Your task to perform on an android device: turn off translation in the chrome app Image 0: 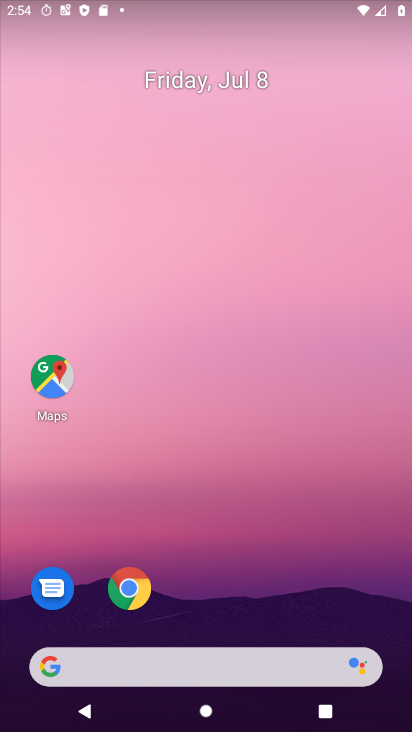
Step 0: press home button
Your task to perform on an android device: turn off translation in the chrome app Image 1: 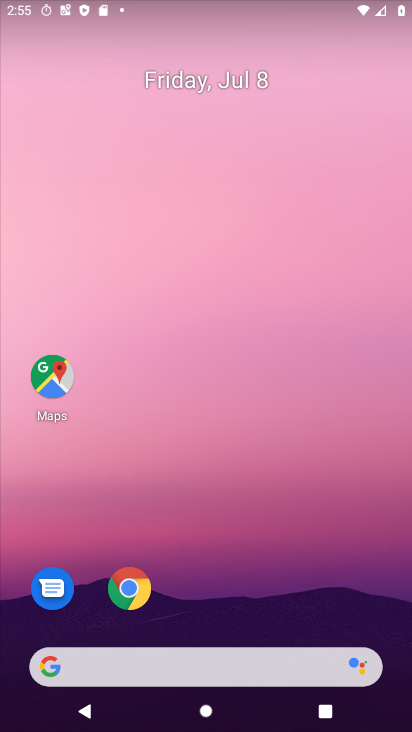
Step 1: drag from (200, 612) to (188, 54)
Your task to perform on an android device: turn off translation in the chrome app Image 2: 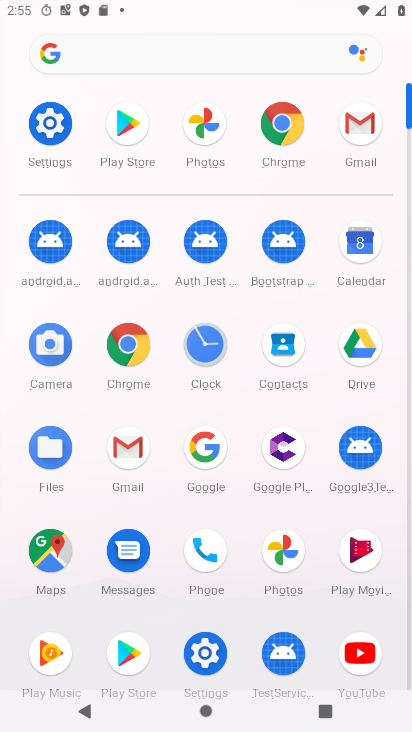
Step 2: click (292, 130)
Your task to perform on an android device: turn off translation in the chrome app Image 3: 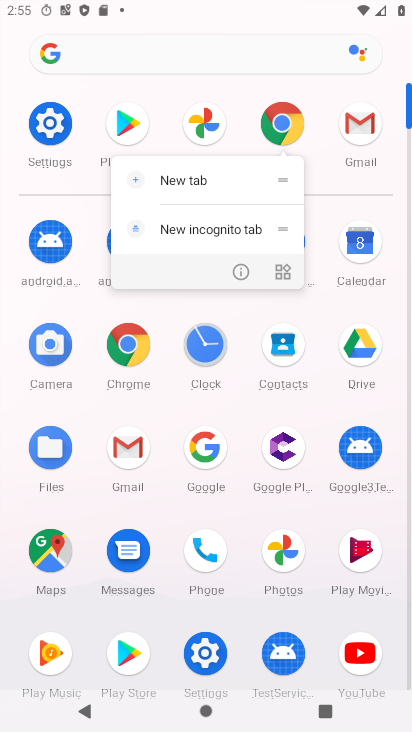
Step 3: click (293, 128)
Your task to perform on an android device: turn off translation in the chrome app Image 4: 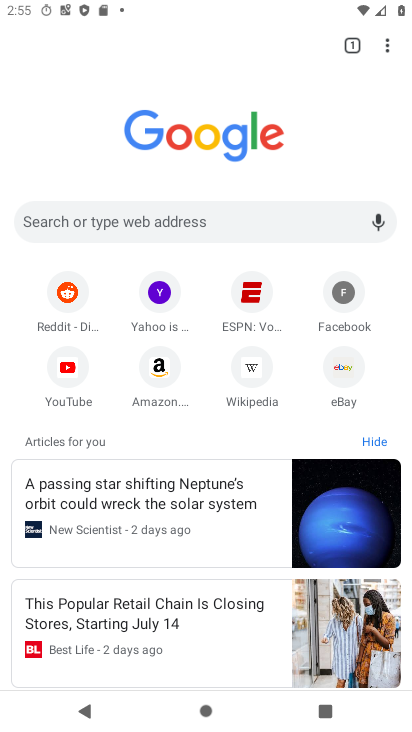
Step 4: drag from (390, 42) to (232, 381)
Your task to perform on an android device: turn off translation in the chrome app Image 5: 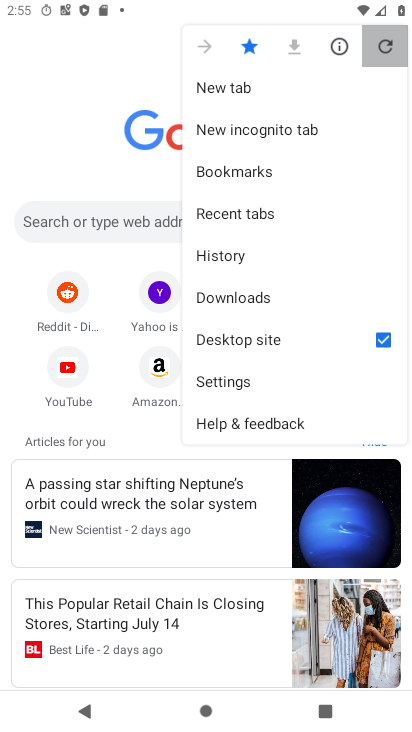
Step 5: click (225, 380)
Your task to perform on an android device: turn off translation in the chrome app Image 6: 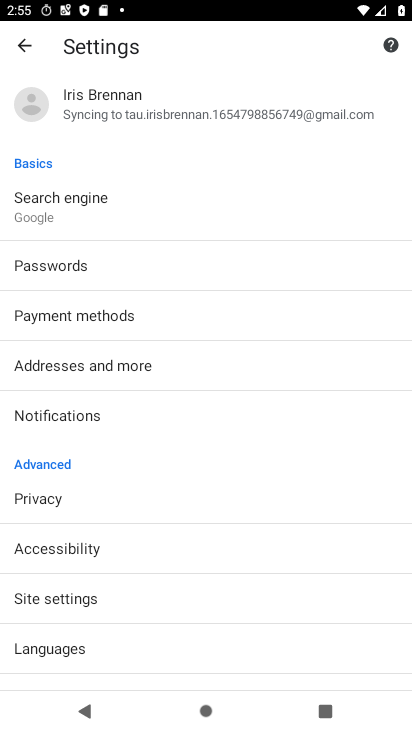
Step 6: click (63, 651)
Your task to perform on an android device: turn off translation in the chrome app Image 7: 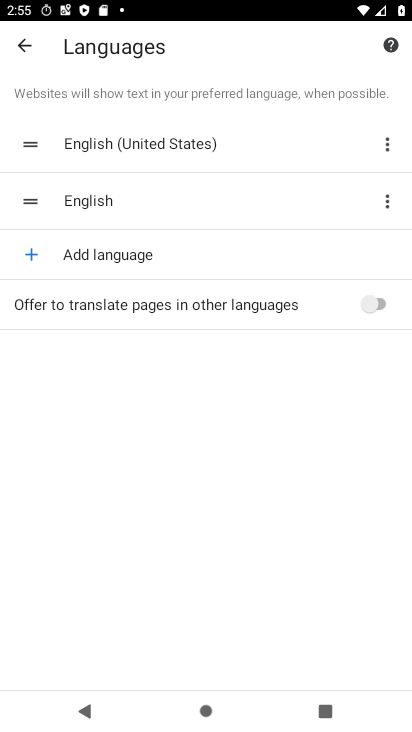
Step 7: task complete